Your task to perform on an android device: Go to privacy settings Image 0: 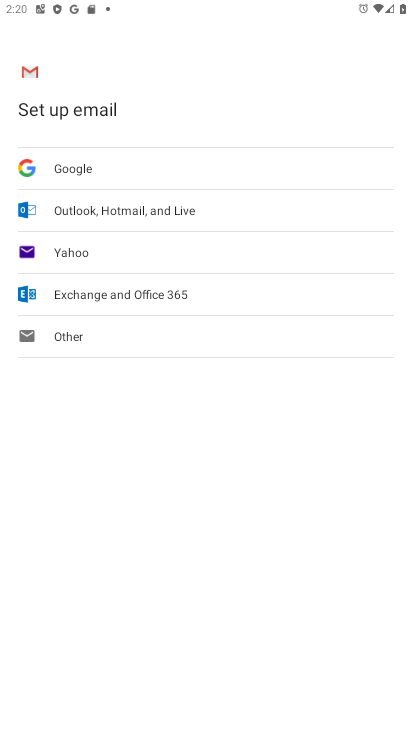
Step 0: press home button
Your task to perform on an android device: Go to privacy settings Image 1: 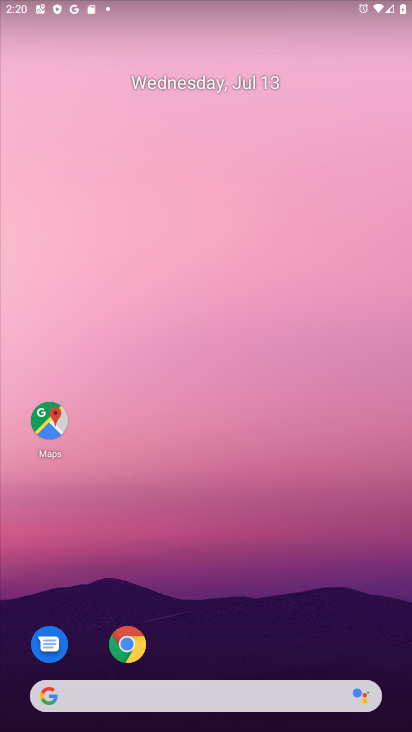
Step 1: drag from (233, 653) to (154, 71)
Your task to perform on an android device: Go to privacy settings Image 2: 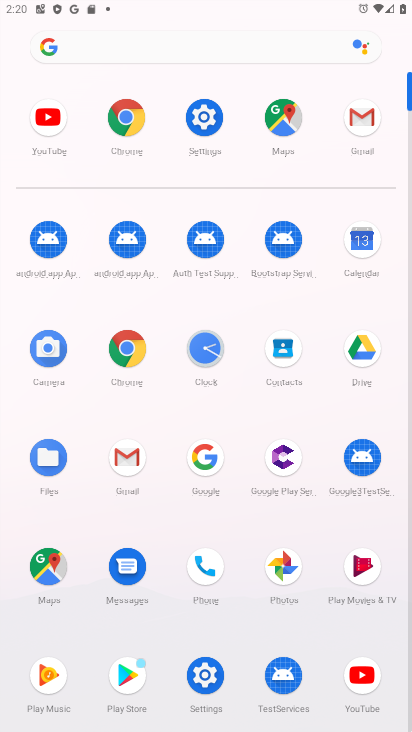
Step 2: click (210, 122)
Your task to perform on an android device: Go to privacy settings Image 3: 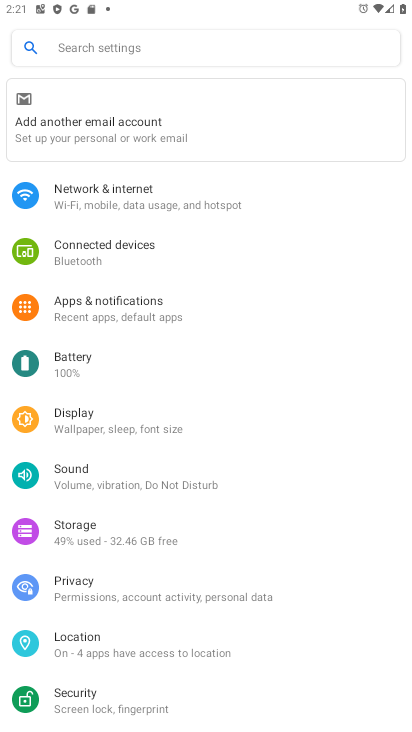
Step 3: click (89, 585)
Your task to perform on an android device: Go to privacy settings Image 4: 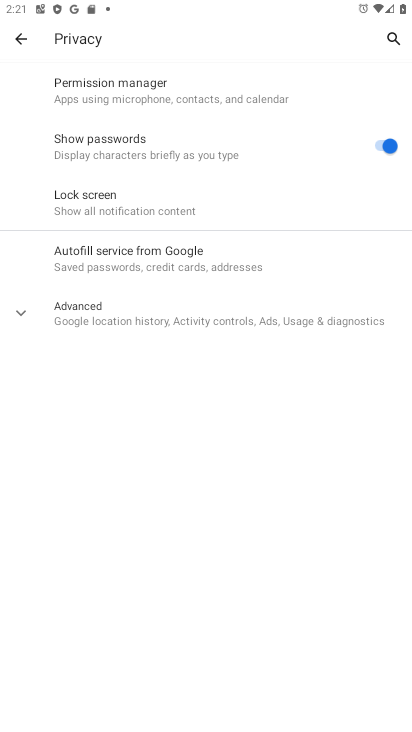
Step 4: task complete